Your task to perform on an android device: Open eBay Image 0: 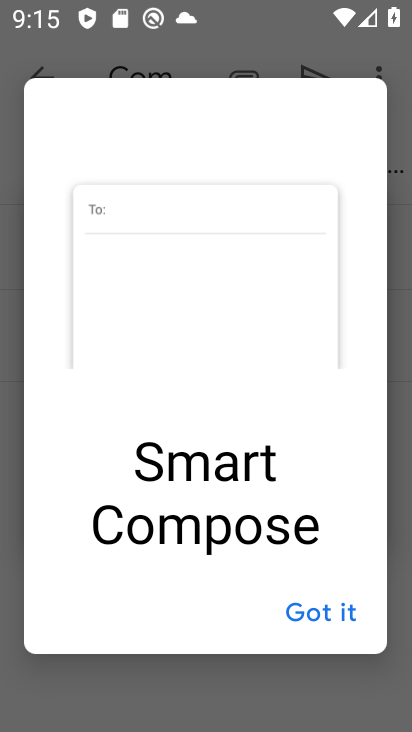
Step 0: press home button
Your task to perform on an android device: Open eBay Image 1: 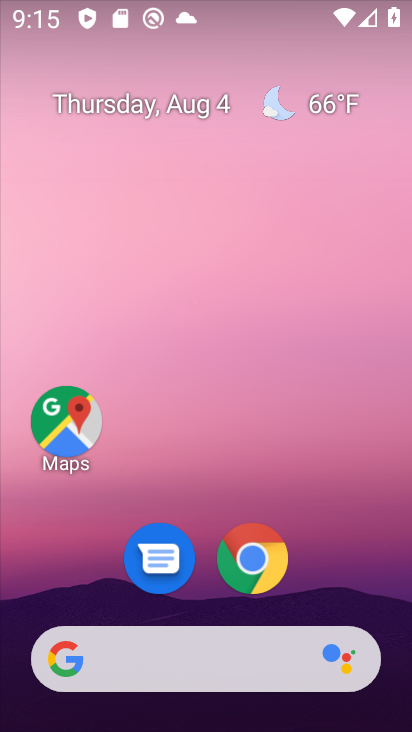
Step 1: drag from (301, 580) to (303, 77)
Your task to perform on an android device: Open eBay Image 2: 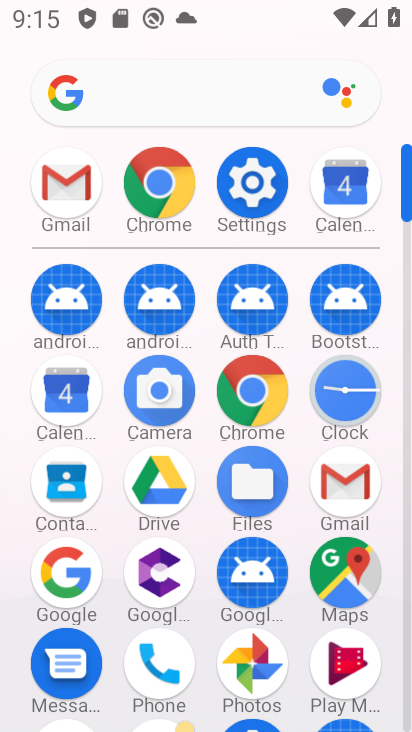
Step 2: click (251, 387)
Your task to perform on an android device: Open eBay Image 3: 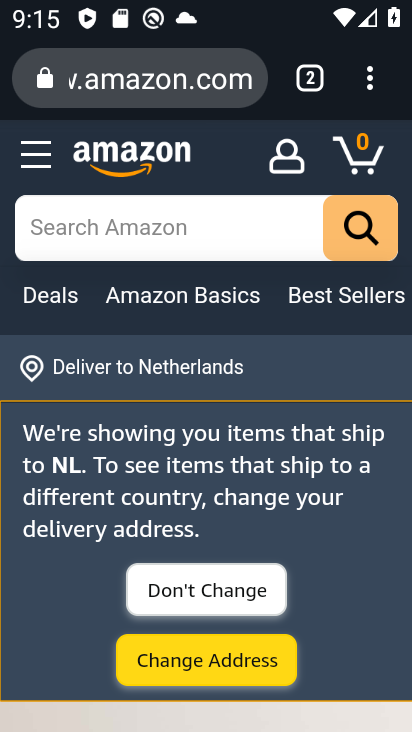
Step 3: click (225, 76)
Your task to perform on an android device: Open eBay Image 4: 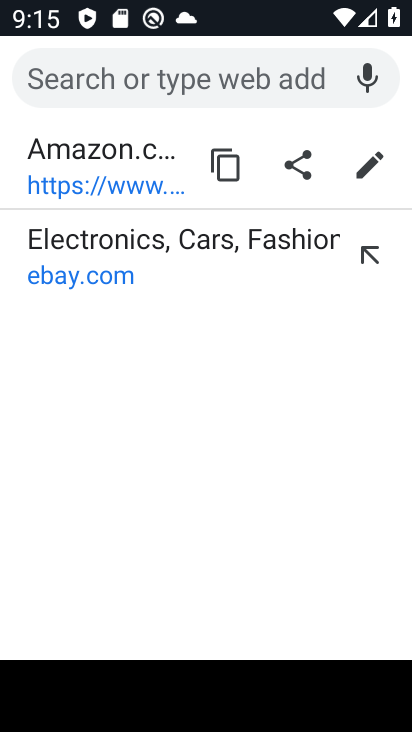
Step 4: click (54, 267)
Your task to perform on an android device: Open eBay Image 5: 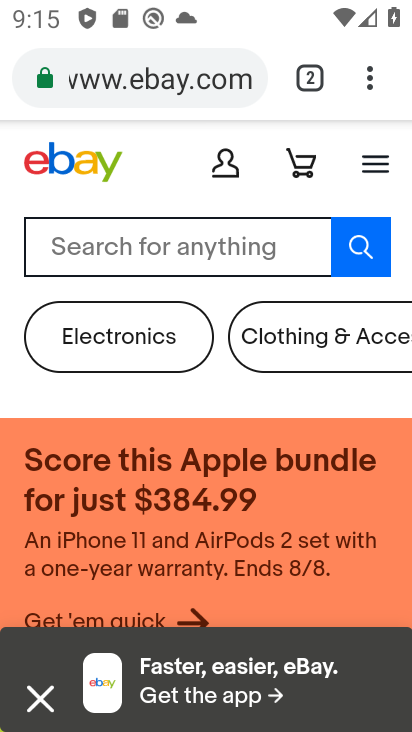
Step 5: task complete